Your task to perform on an android device: check the backup settings in the google photos Image 0: 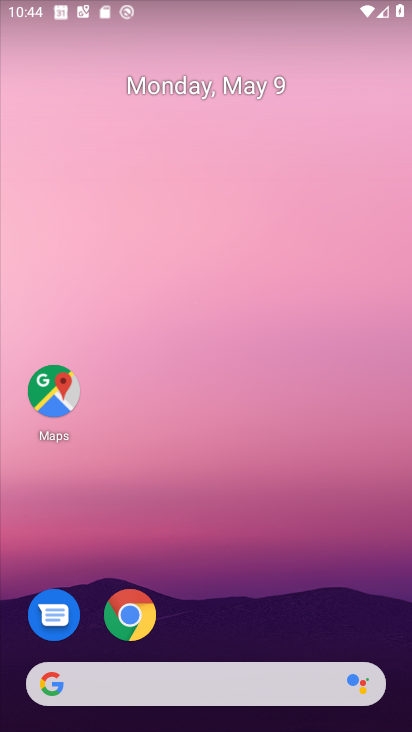
Step 0: drag from (305, 719) to (243, 211)
Your task to perform on an android device: check the backup settings in the google photos Image 1: 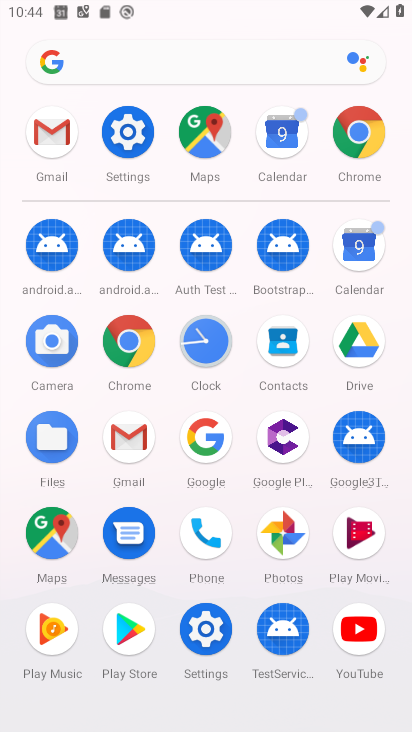
Step 1: click (291, 515)
Your task to perform on an android device: check the backup settings in the google photos Image 2: 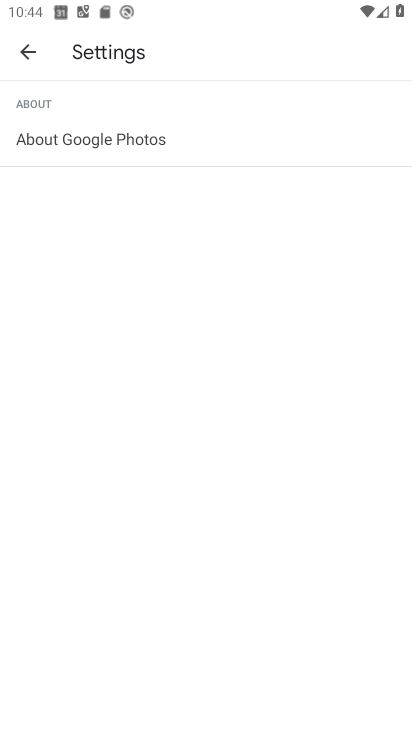
Step 2: click (36, 49)
Your task to perform on an android device: check the backup settings in the google photos Image 3: 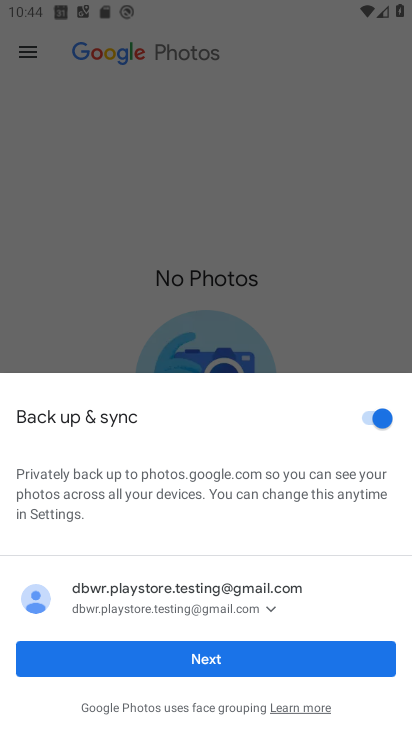
Step 3: click (224, 654)
Your task to perform on an android device: check the backup settings in the google photos Image 4: 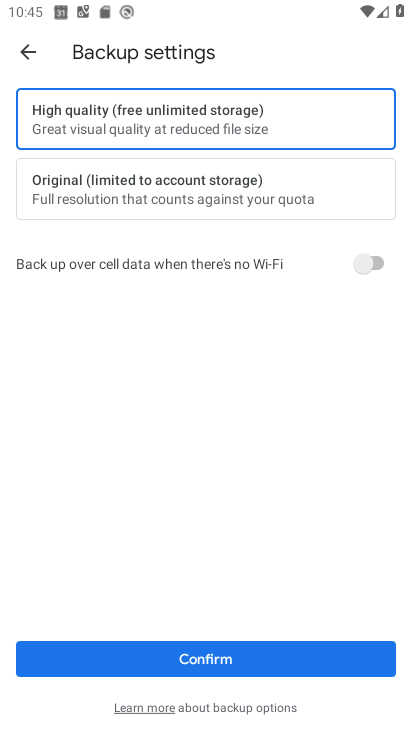
Step 4: task complete